Your task to perform on an android device: Go to Android settings Image 0: 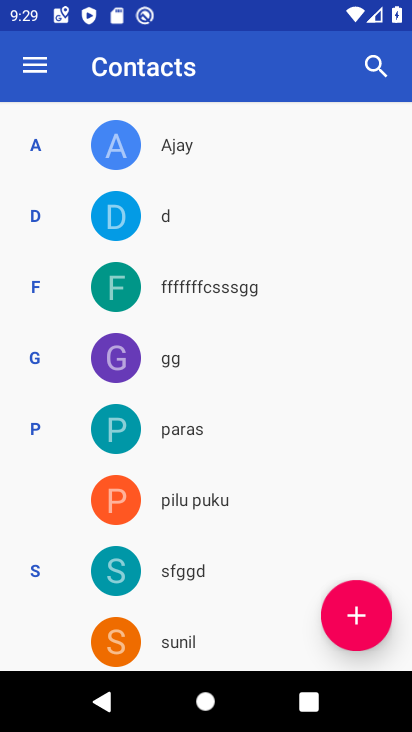
Step 0: press home button
Your task to perform on an android device: Go to Android settings Image 1: 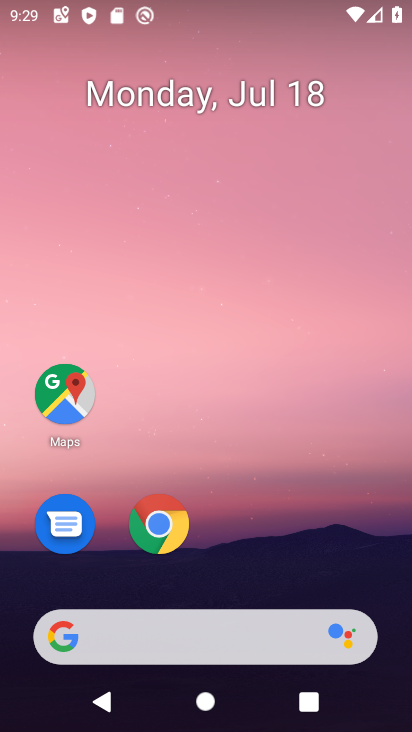
Step 1: drag from (296, 527) to (234, 35)
Your task to perform on an android device: Go to Android settings Image 2: 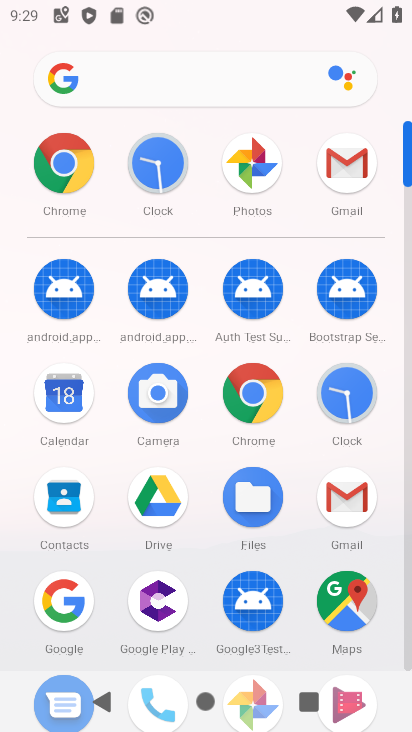
Step 2: drag from (210, 457) to (200, 144)
Your task to perform on an android device: Go to Android settings Image 3: 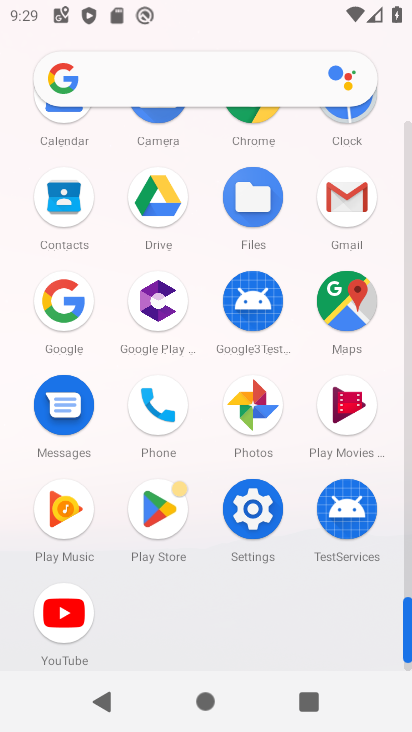
Step 3: click (269, 510)
Your task to perform on an android device: Go to Android settings Image 4: 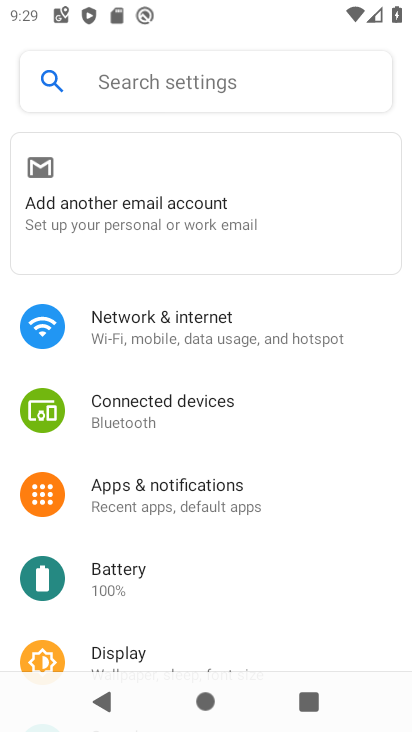
Step 4: drag from (289, 372) to (263, 208)
Your task to perform on an android device: Go to Android settings Image 5: 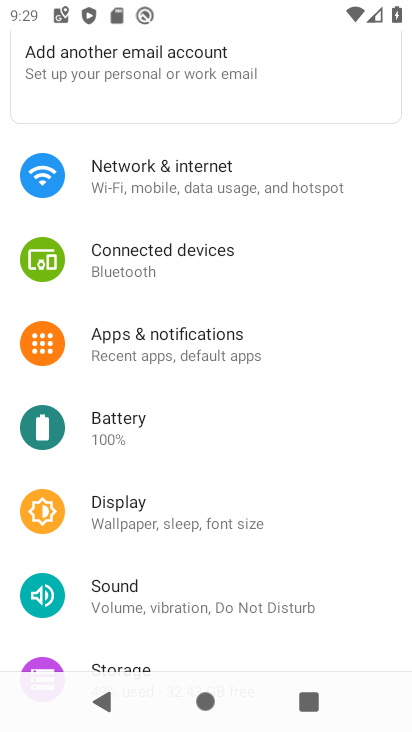
Step 5: drag from (254, 467) to (300, 0)
Your task to perform on an android device: Go to Android settings Image 6: 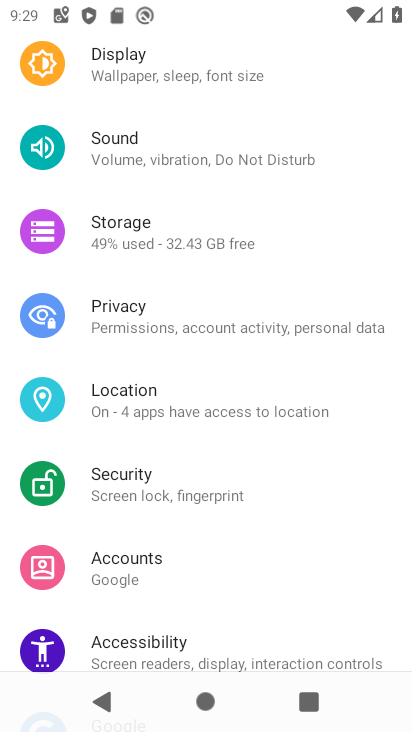
Step 6: drag from (225, 564) to (255, 27)
Your task to perform on an android device: Go to Android settings Image 7: 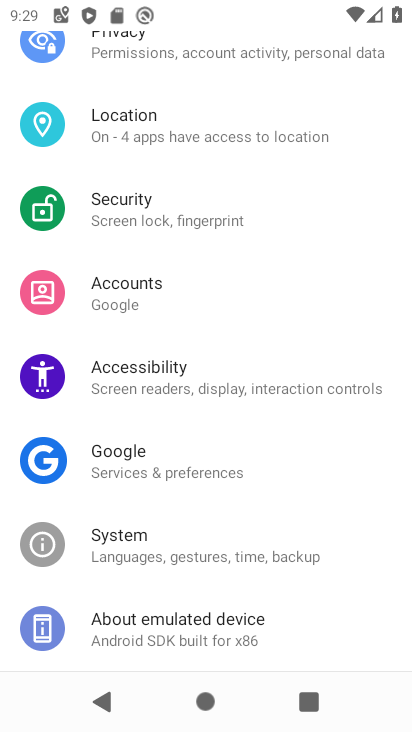
Step 7: click (188, 623)
Your task to perform on an android device: Go to Android settings Image 8: 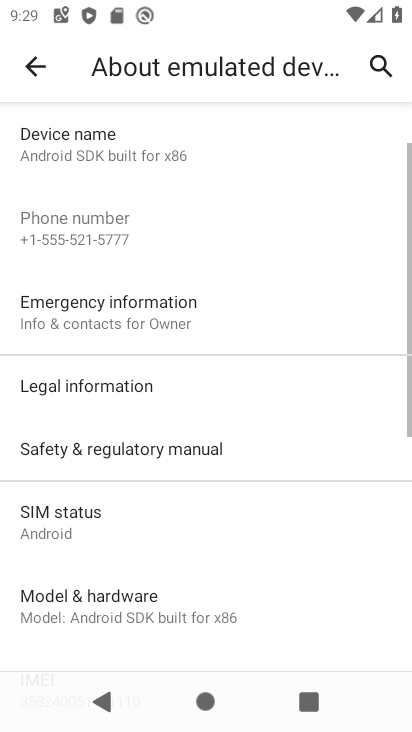
Step 8: task complete